Your task to perform on an android device: View the shopping cart on costco. Image 0: 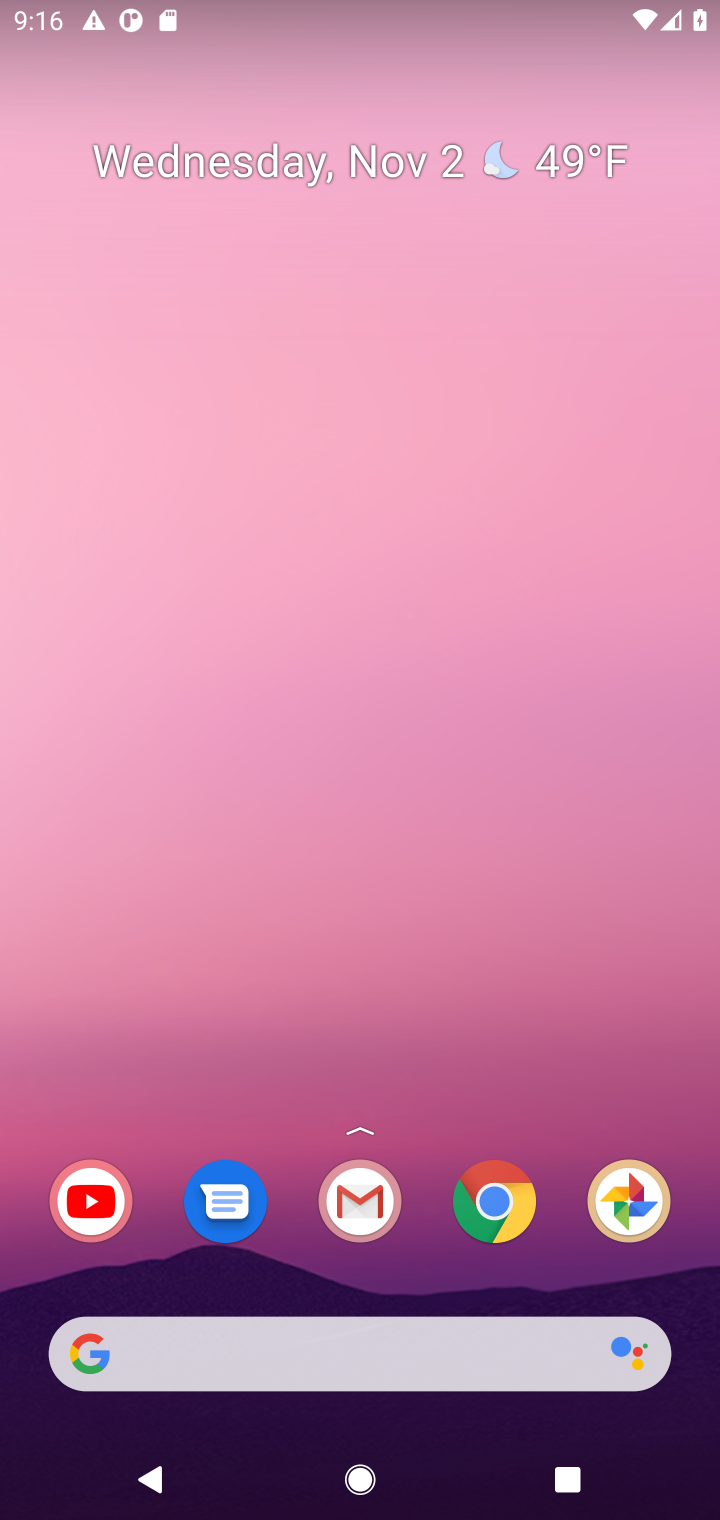
Step 0: drag from (431, 1297) to (198, 258)
Your task to perform on an android device: View the shopping cart on costco. Image 1: 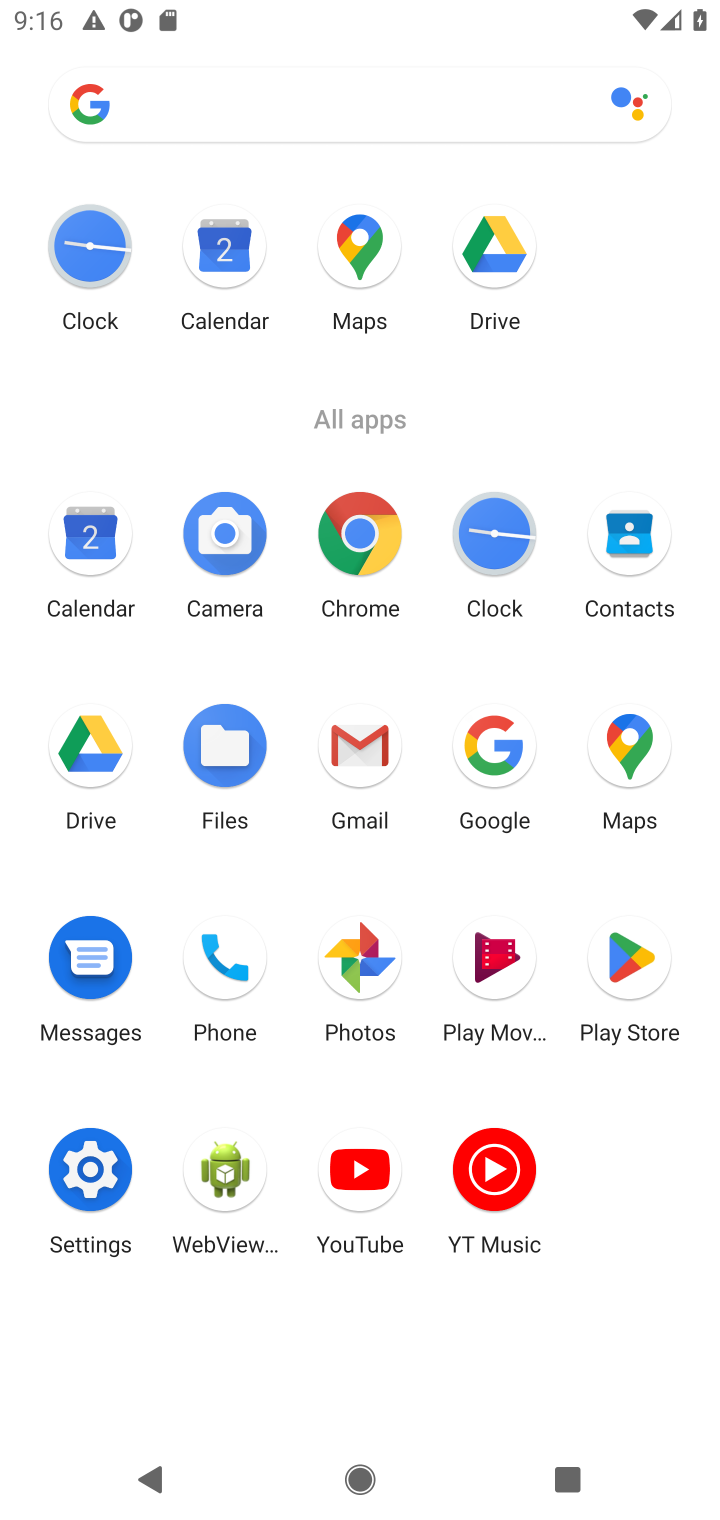
Step 1: click (361, 542)
Your task to perform on an android device: View the shopping cart on costco. Image 2: 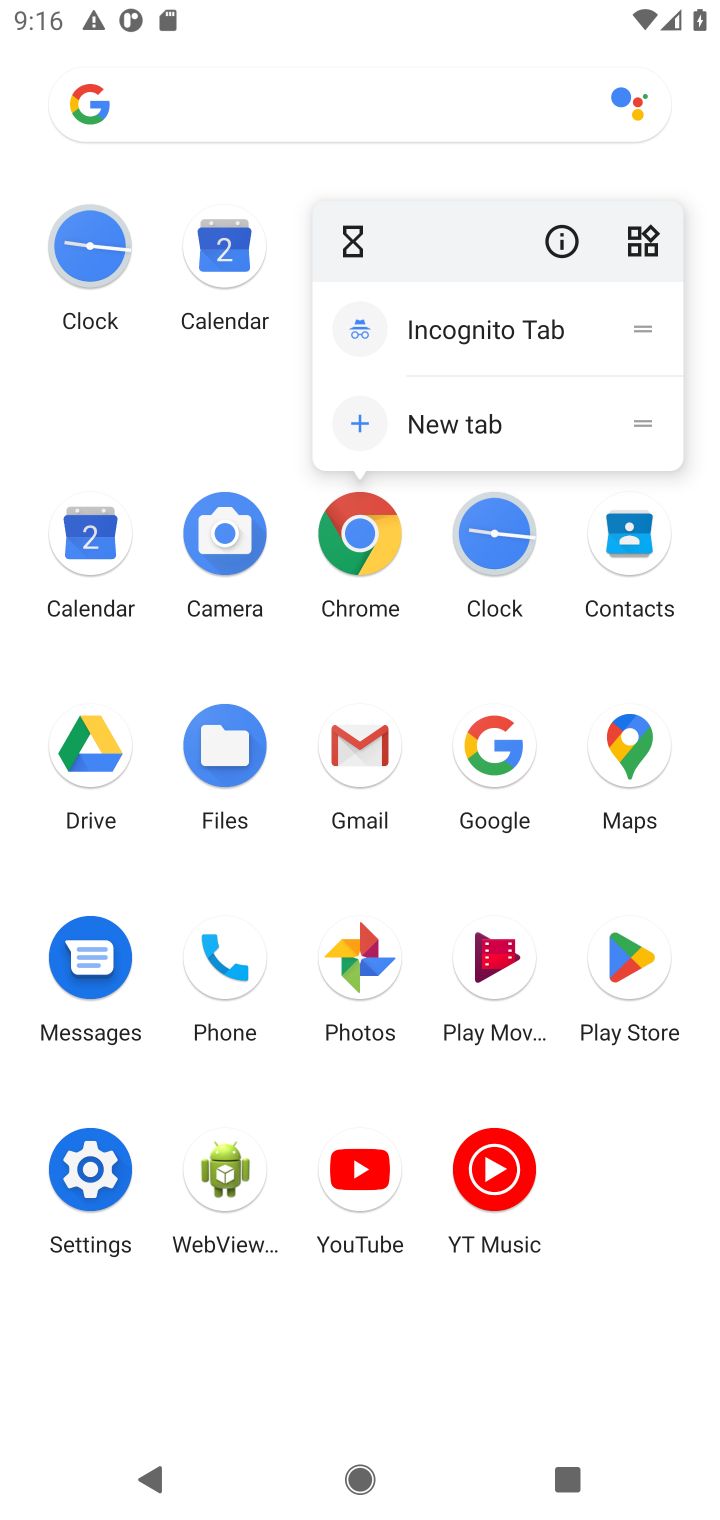
Step 2: click (369, 560)
Your task to perform on an android device: View the shopping cart on costco. Image 3: 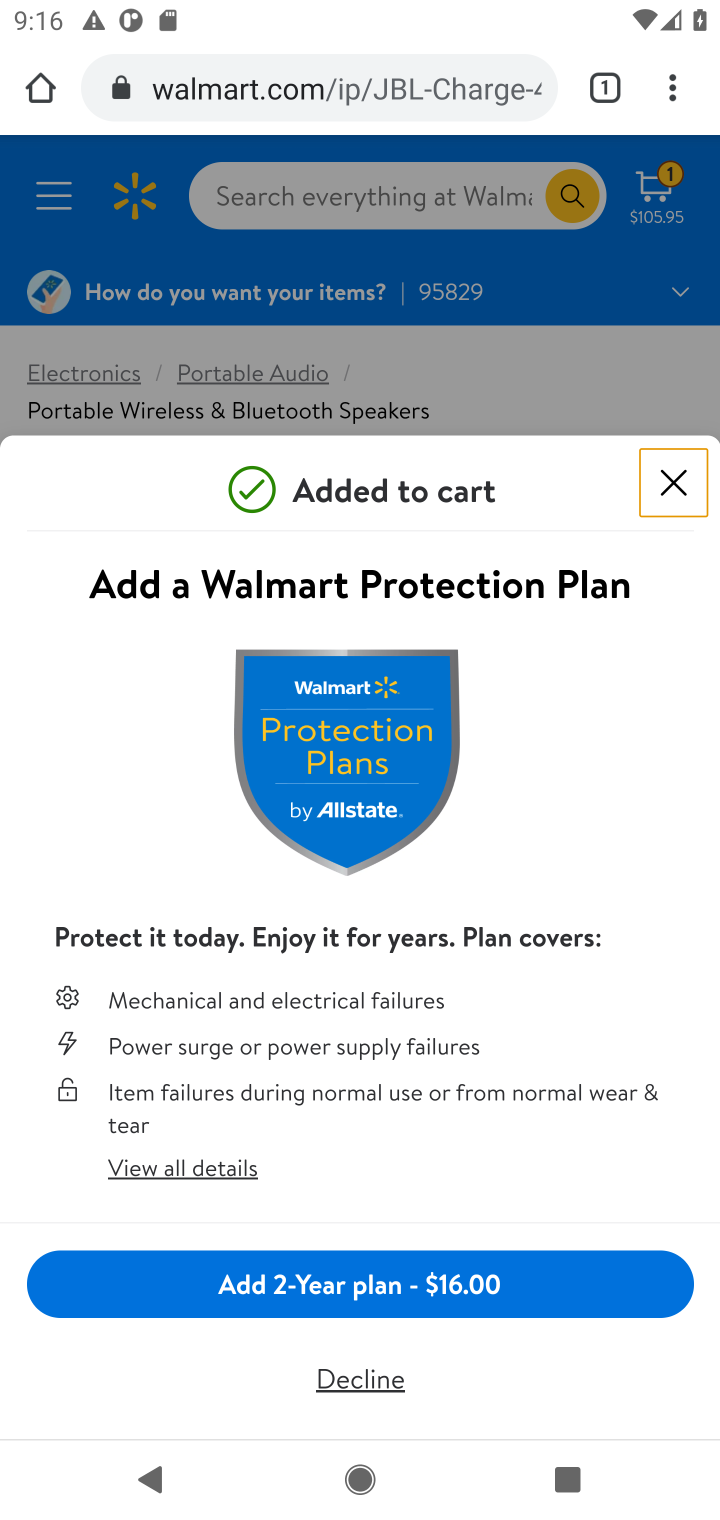
Step 3: click (414, 86)
Your task to perform on an android device: View the shopping cart on costco. Image 4: 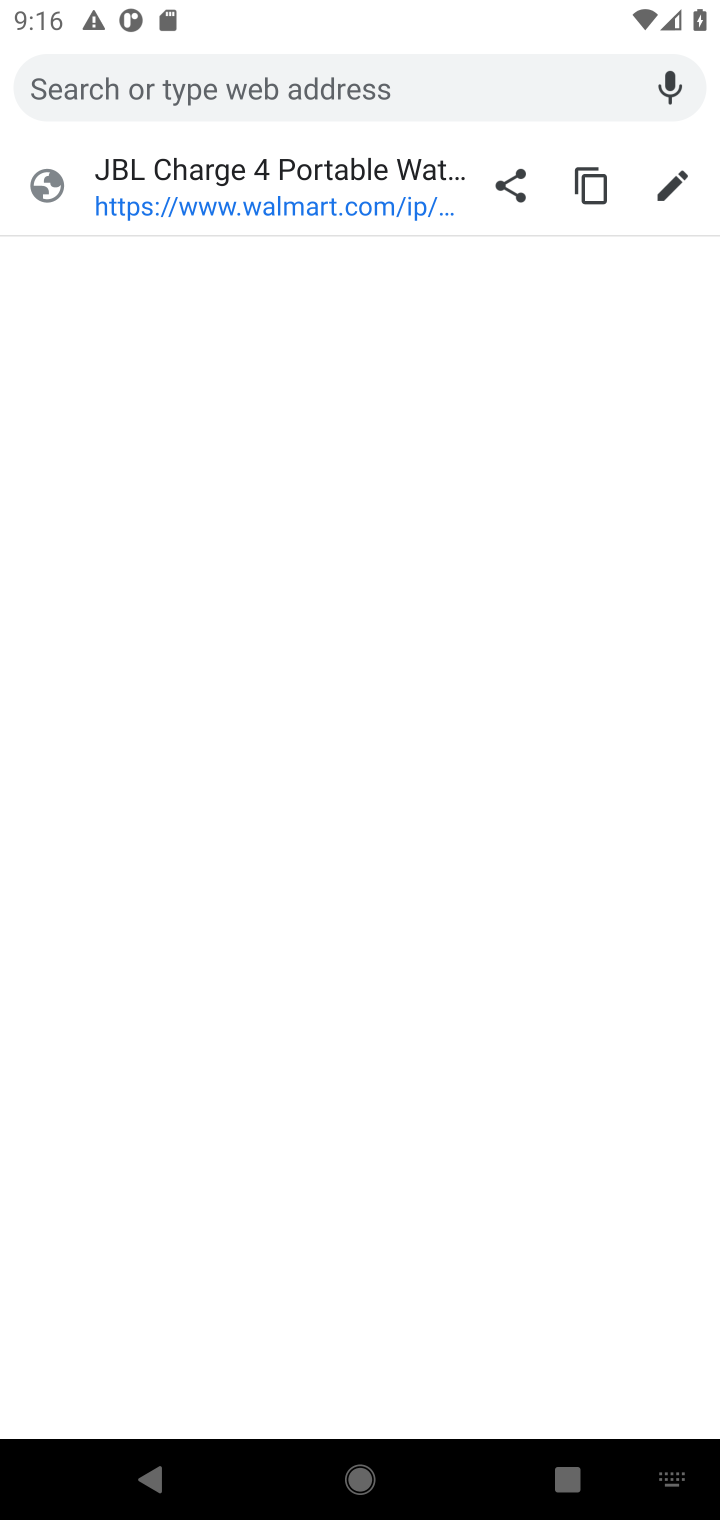
Step 4: type "costco.com"
Your task to perform on an android device: View the shopping cart on costco. Image 5: 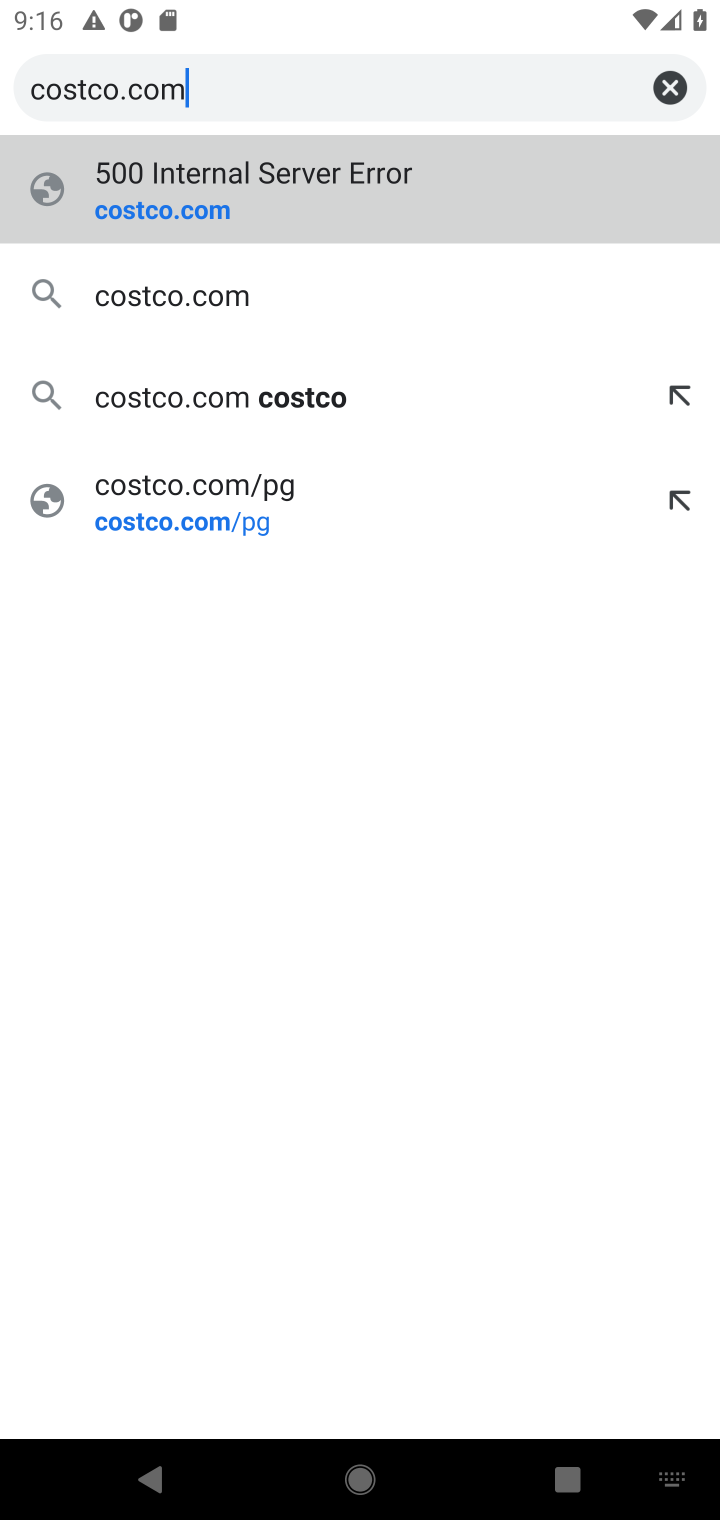
Step 5: press enter
Your task to perform on an android device: View the shopping cart on costco. Image 6: 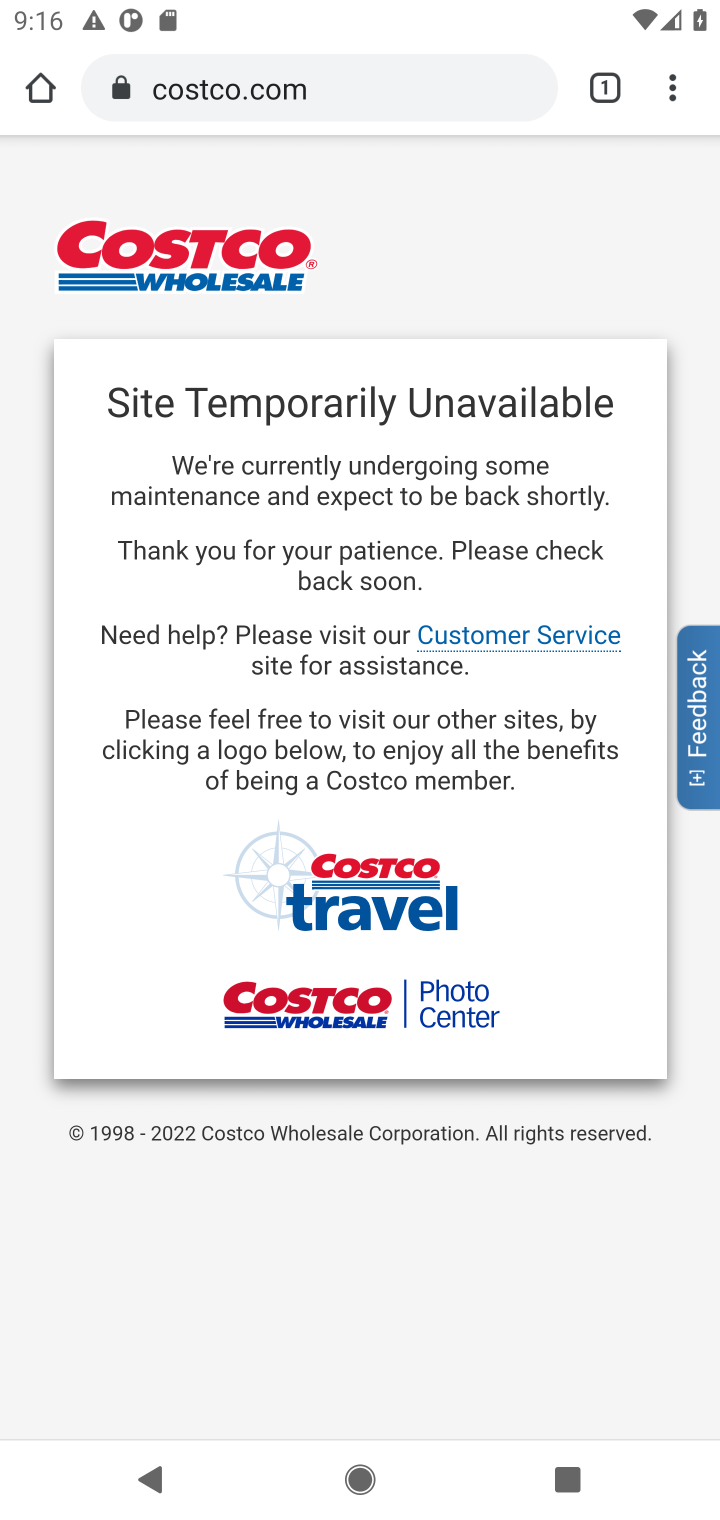
Step 6: task complete